Your task to perform on an android device: Open eBay Image 0: 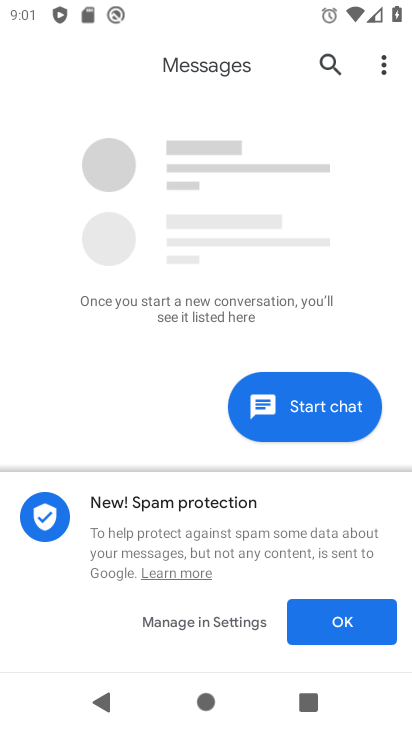
Step 0: press home button
Your task to perform on an android device: Open eBay Image 1: 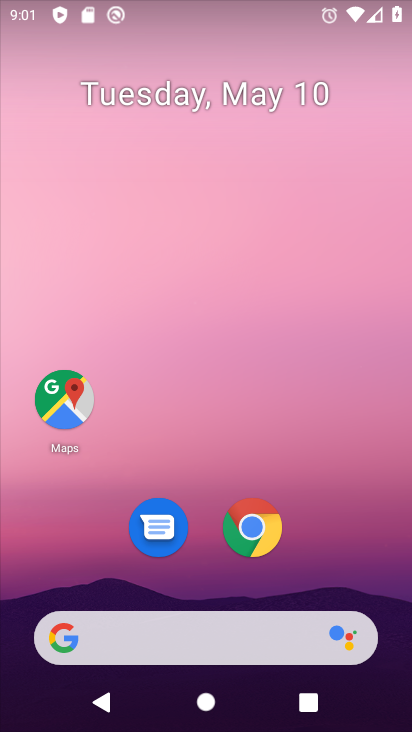
Step 1: click (268, 521)
Your task to perform on an android device: Open eBay Image 2: 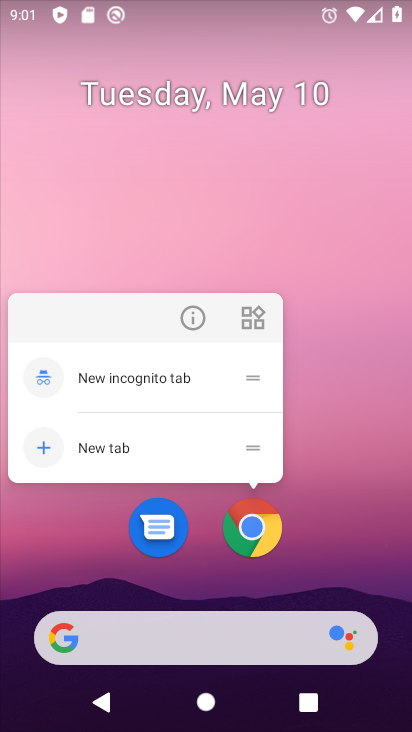
Step 2: click (246, 522)
Your task to perform on an android device: Open eBay Image 3: 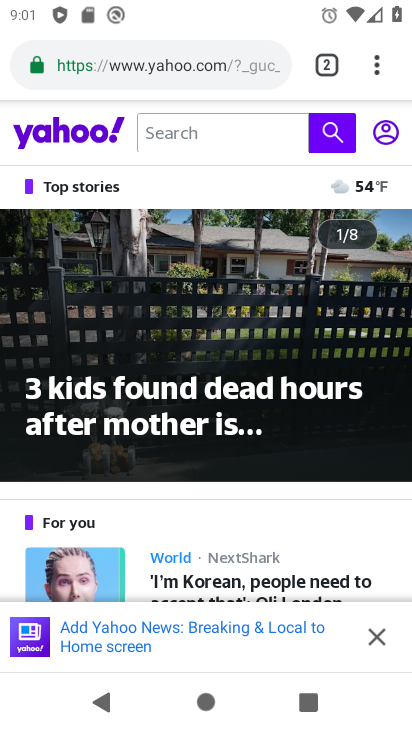
Step 3: click (323, 60)
Your task to perform on an android device: Open eBay Image 4: 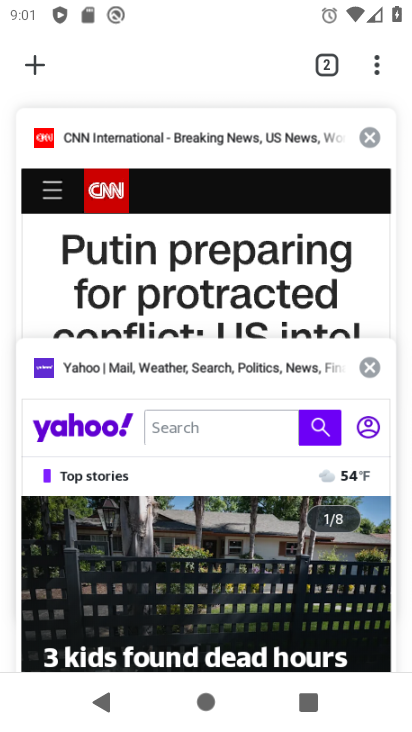
Step 4: click (35, 56)
Your task to perform on an android device: Open eBay Image 5: 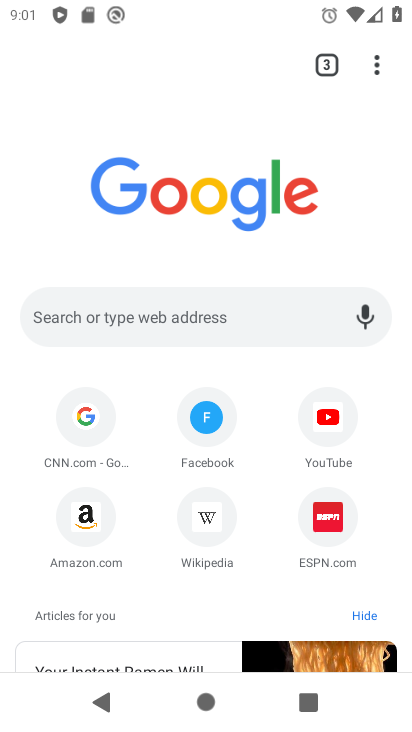
Step 5: click (187, 308)
Your task to perform on an android device: Open eBay Image 6: 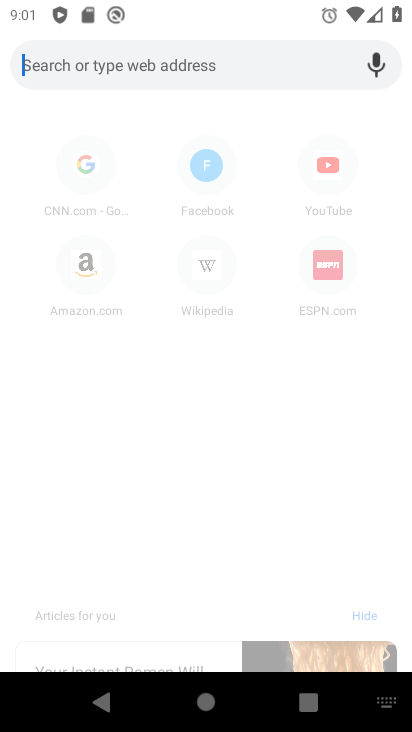
Step 6: type "ebay"
Your task to perform on an android device: Open eBay Image 7: 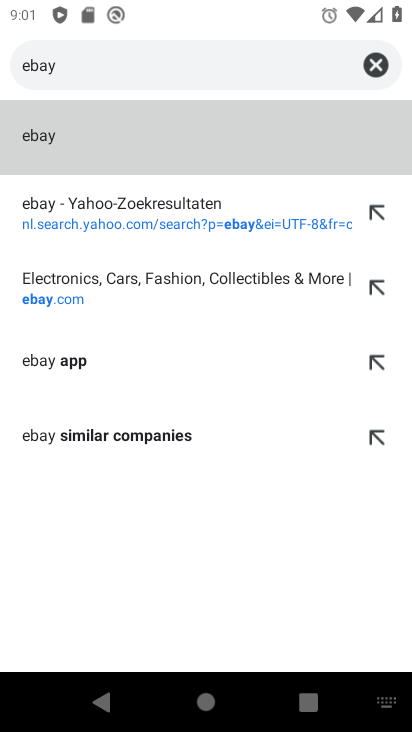
Step 7: click (232, 221)
Your task to perform on an android device: Open eBay Image 8: 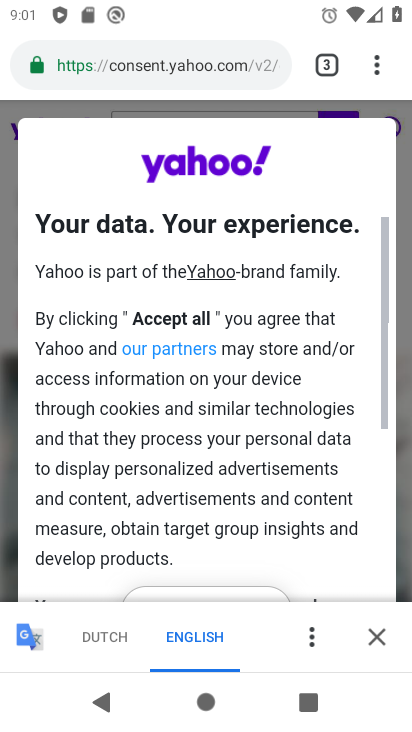
Step 8: click (375, 633)
Your task to perform on an android device: Open eBay Image 9: 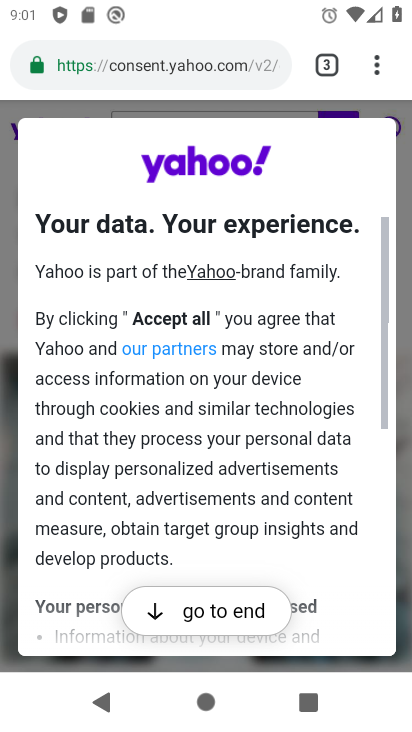
Step 9: click (236, 609)
Your task to perform on an android device: Open eBay Image 10: 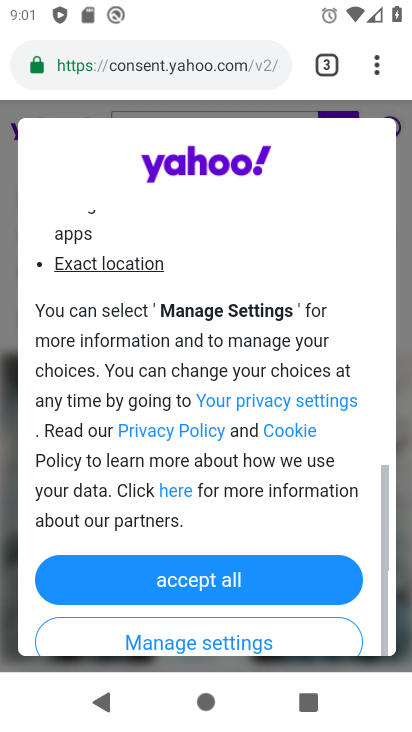
Step 10: click (237, 590)
Your task to perform on an android device: Open eBay Image 11: 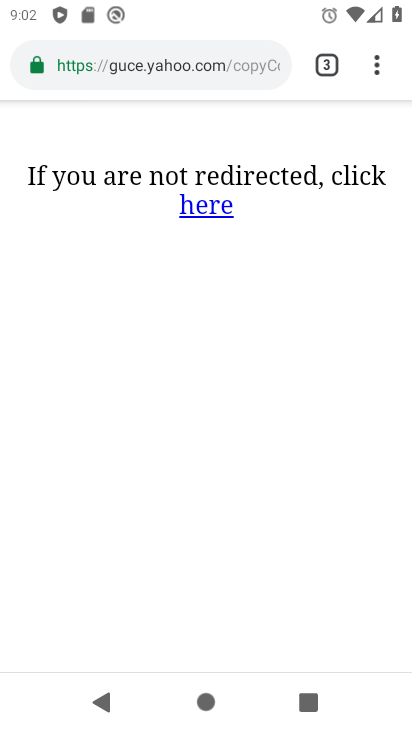
Step 11: click (206, 200)
Your task to perform on an android device: Open eBay Image 12: 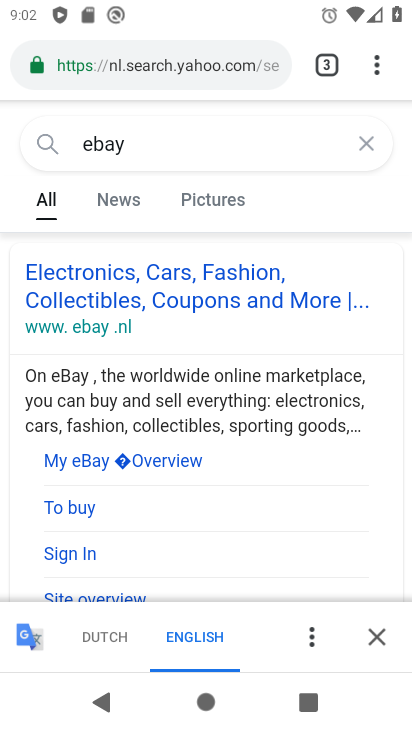
Step 12: click (211, 309)
Your task to perform on an android device: Open eBay Image 13: 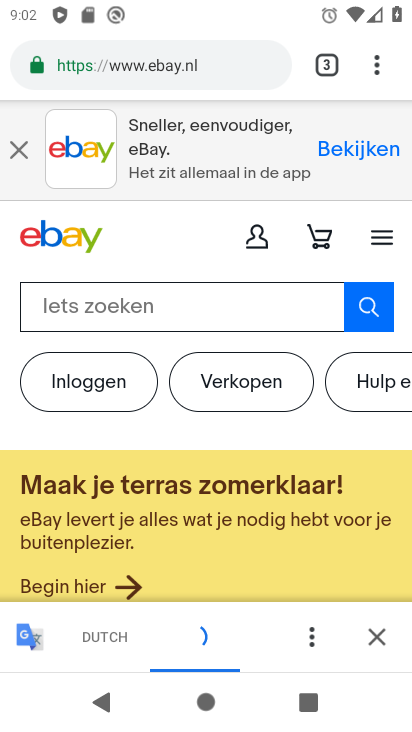
Step 13: task complete